Your task to perform on an android device: change the clock style Image 0: 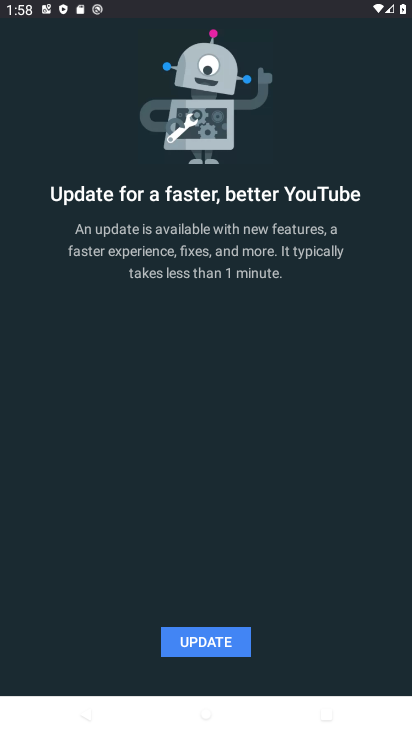
Step 0: press home button
Your task to perform on an android device: change the clock style Image 1: 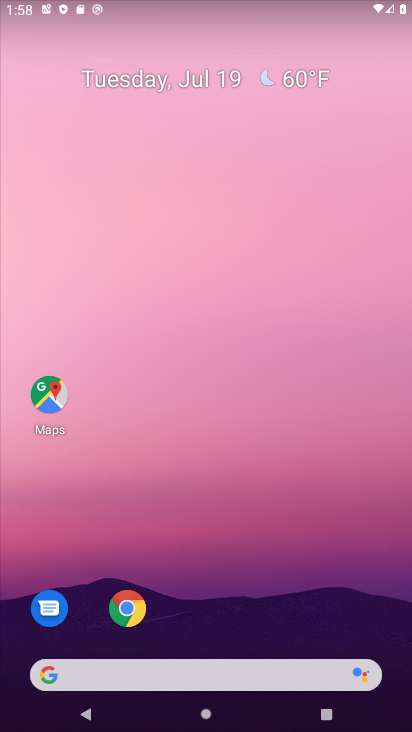
Step 1: drag from (219, 645) to (218, 37)
Your task to perform on an android device: change the clock style Image 2: 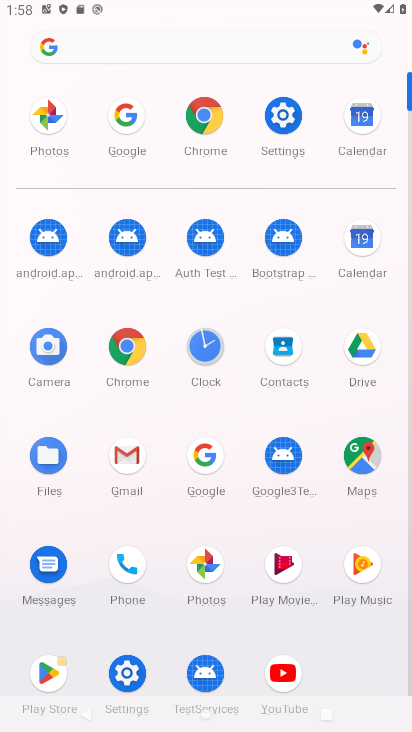
Step 2: click (207, 356)
Your task to perform on an android device: change the clock style Image 3: 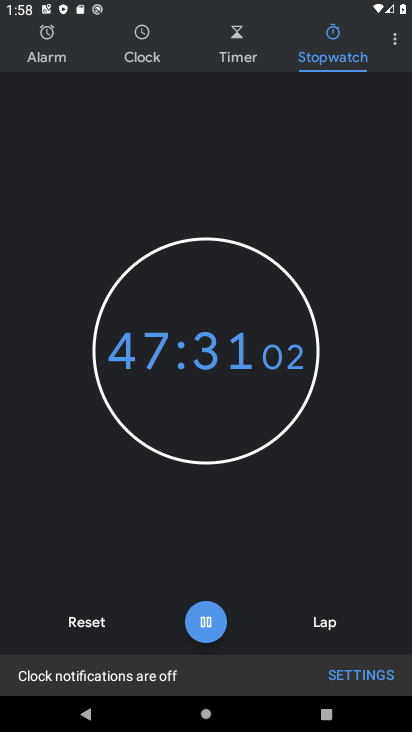
Step 3: click (400, 48)
Your task to perform on an android device: change the clock style Image 4: 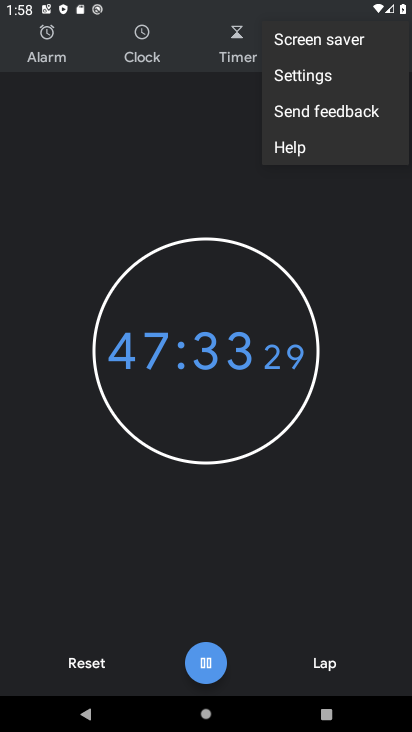
Step 4: click (322, 72)
Your task to perform on an android device: change the clock style Image 5: 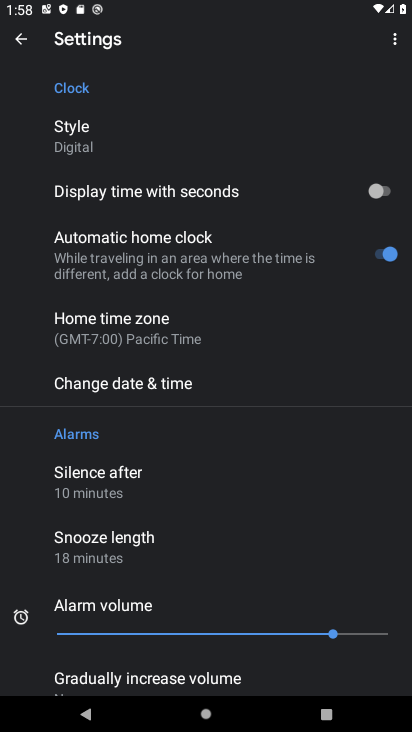
Step 5: click (90, 148)
Your task to perform on an android device: change the clock style Image 6: 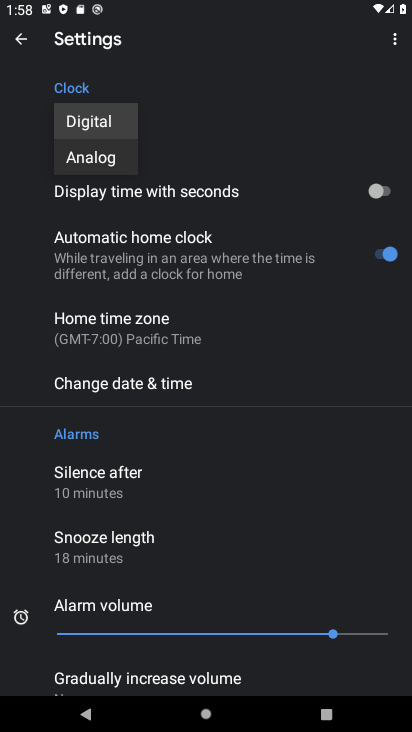
Step 6: click (123, 165)
Your task to perform on an android device: change the clock style Image 7: 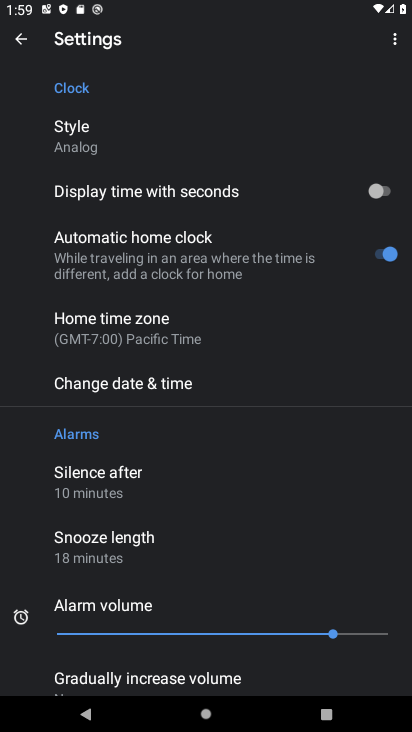
Step 7: task complete